Your task to perform on an android device: move a message to another label in the gmail app Image 0: 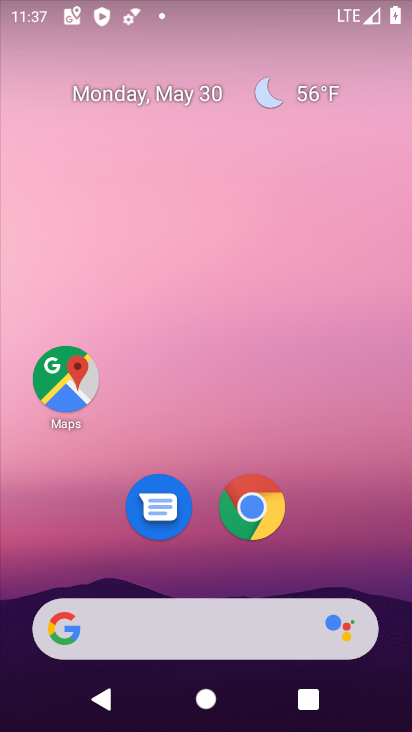
Step 0: drag from (377, 582) to (233, 58)
Your task to perform on an android device: move a message to another label in the gmail app Image 1: 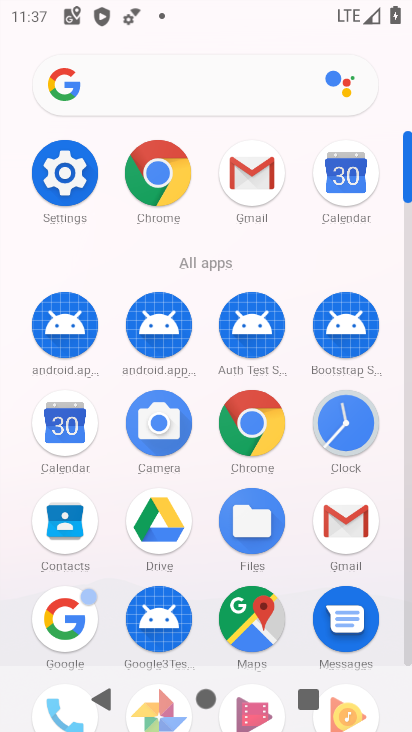
Step 1: click (260, 152)
Your task to perform on an android device: move a message to another label in the gmail app Image 2: 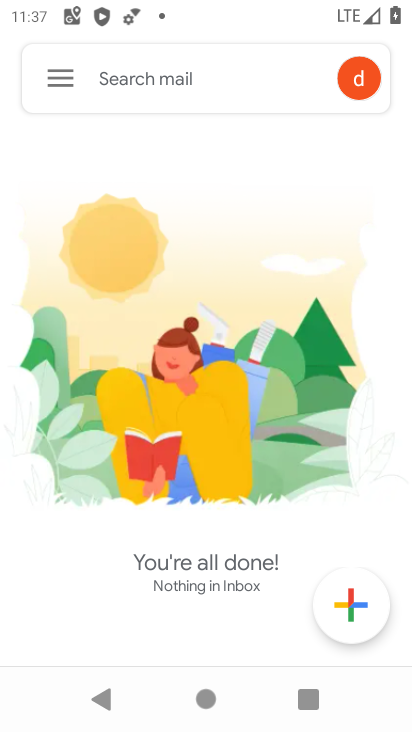
Step 2: click (39, 79)
Your task to perform on an android device: move a message to another label in the gmail app Image 3: 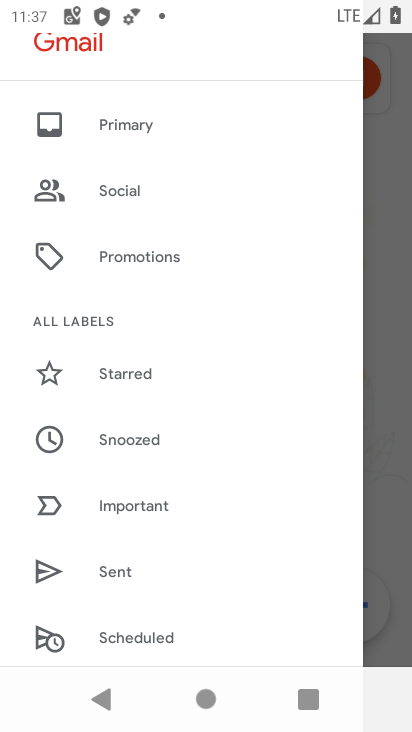
Step 3: drag from (295, 582) to (267, 224)
Your task to perform on an android device: move a message to another label in the gmail app Image 4: 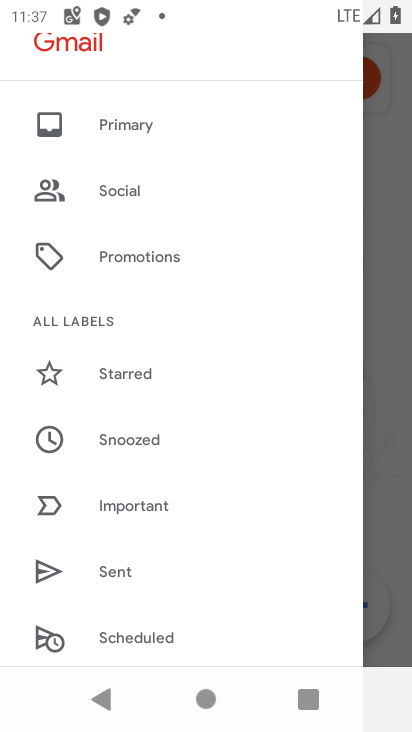
Step 4: drag from (237, 631) to (259, 230)
Your task to perform on an android device: move a message to another label in the gmail app Image 5: 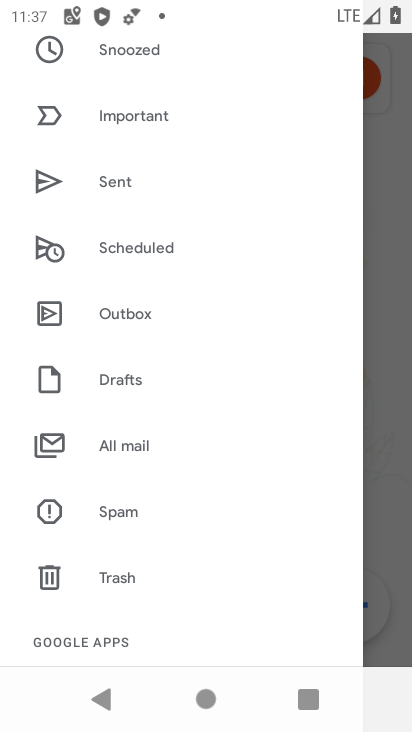
Step 5: click (150, 446)
Your task to perform on an android device: move a message to another label in the gmail app Image 6: 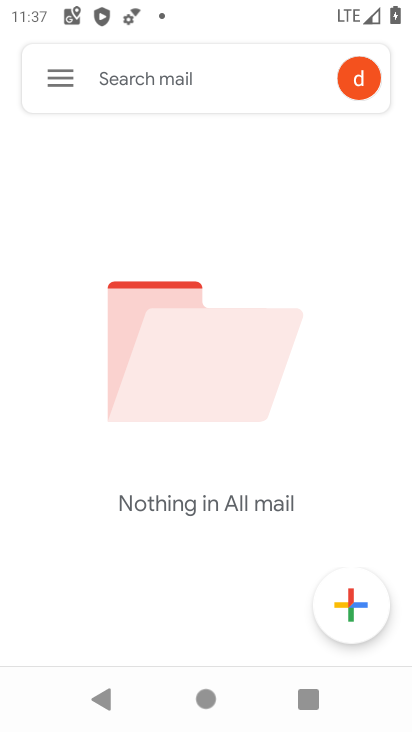
Step 6: task complete